Your task to perform on an android device: change the upload size in google photos Image 0: 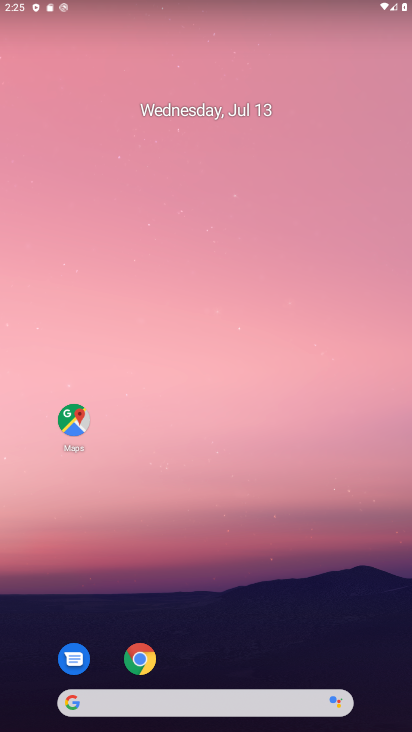
Step 0: drag from (199, 579) to (208, 165)
Your task to perform on an android device: change the upload size in google photos Image 1: 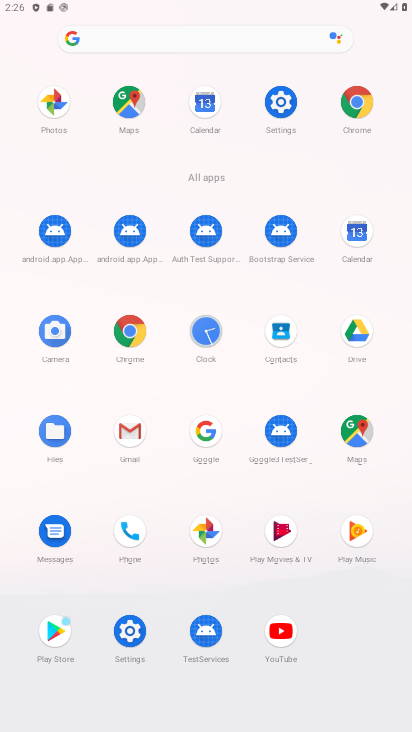
Step 1: click (202, 541)
Your task to perform on an android device: change the upload size in google photos Image 2: 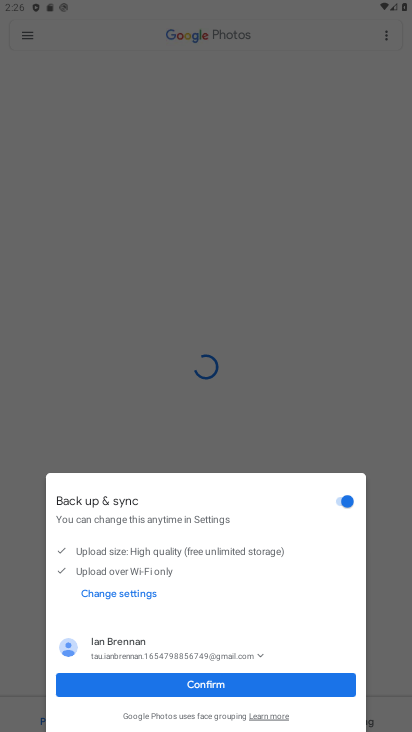
Step 2: click (176, 687)
Your task to perform on an android device: change the upload size in google photos Image 3: 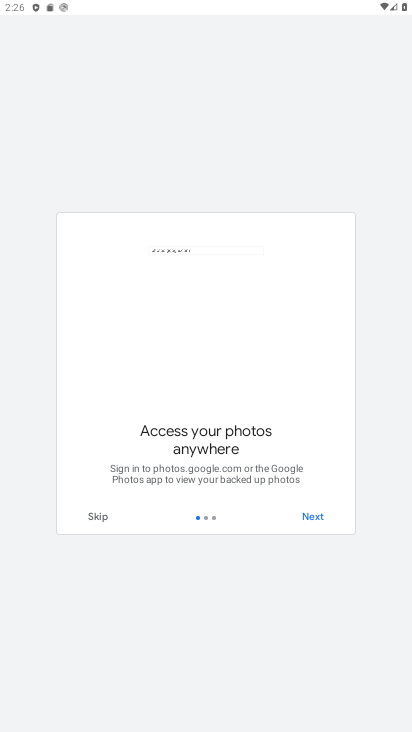
Step 3: click (113, 519)
Your task to perform on an android device: change the upload size in google photos Image 4: 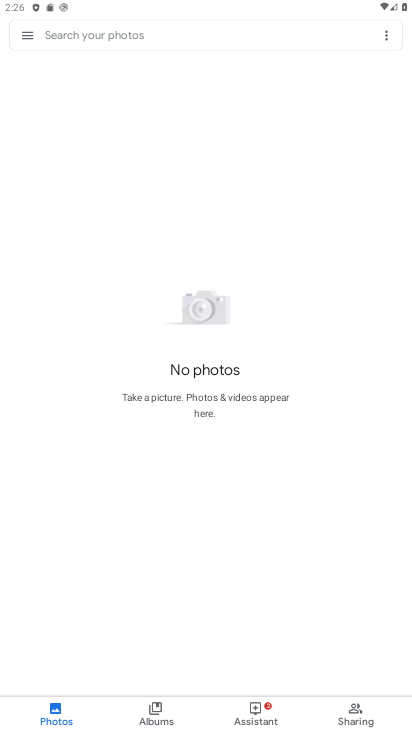
Step 4: click (26, 32)
Your task to perform on an android device: change the upload size in google photos Image 5: 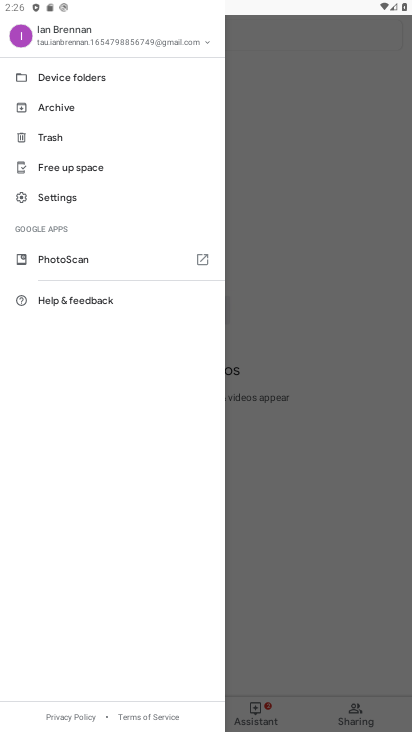
Step 5: click (46, 202)
Your task to perform on an android device: change the upload size in google photos Image 6: 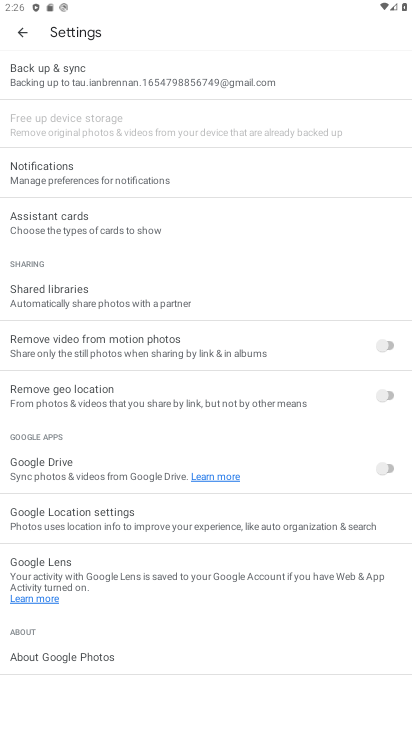
Step 6: click (87, 78)
Your task to perform on an android device: change the upload size in google photos Image 7: 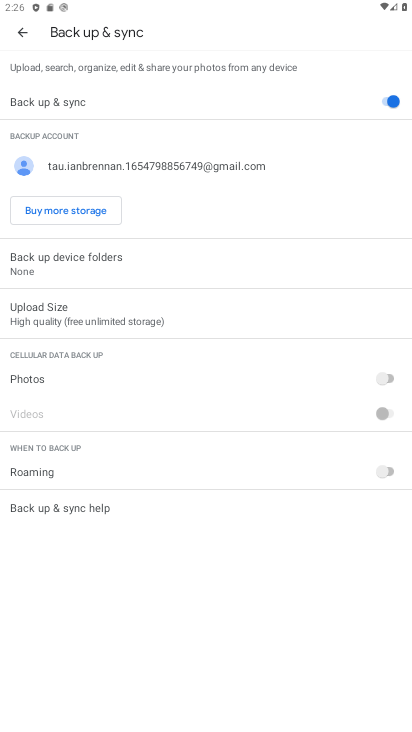
Step 7: click (108, 299)
Your task to perform on an android device: change the upload size in google photos Image 8: 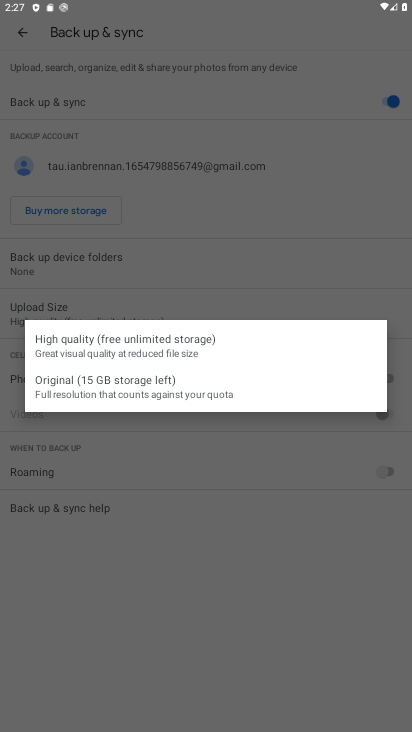
Step 8: click (134, 378)
Your task to perform on an android device: change the upload size in google photos Image 9: 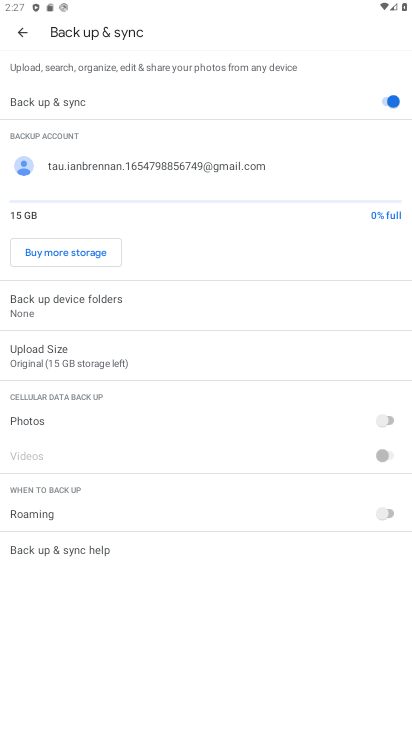
Step 9: task complete